Your task to perform on an android device: Open the map Image 0: 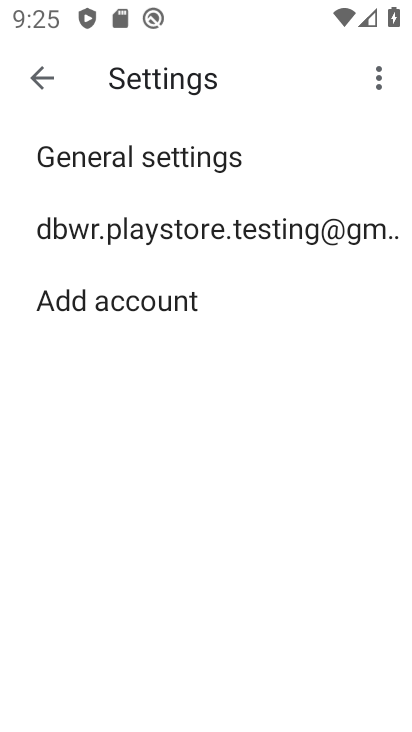
Step 0: press home button
Your task to perform on an android device: Open the map Image 1: 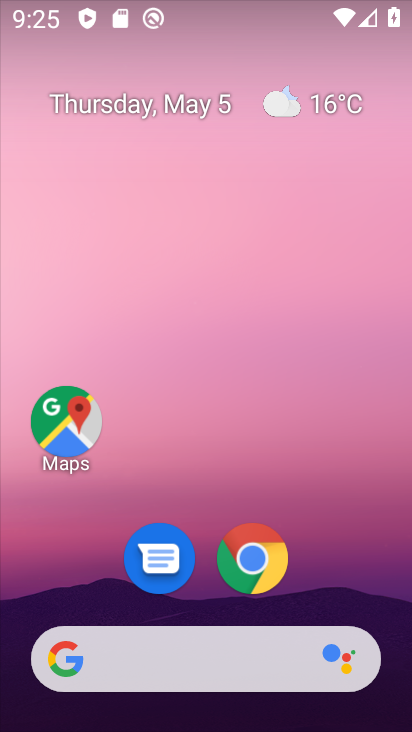
Step 1: click (73, 417)
Your task to perform on an android device: Open the map Image 2: 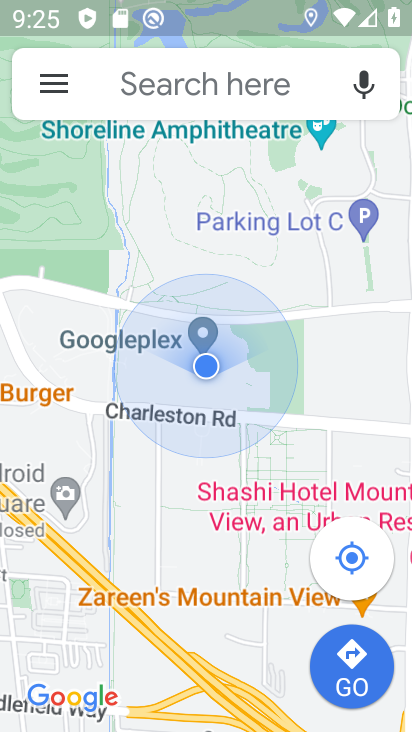
Step 2: task complete